Your task to perform on an android device: allow cookies in the chrome app Image 0: 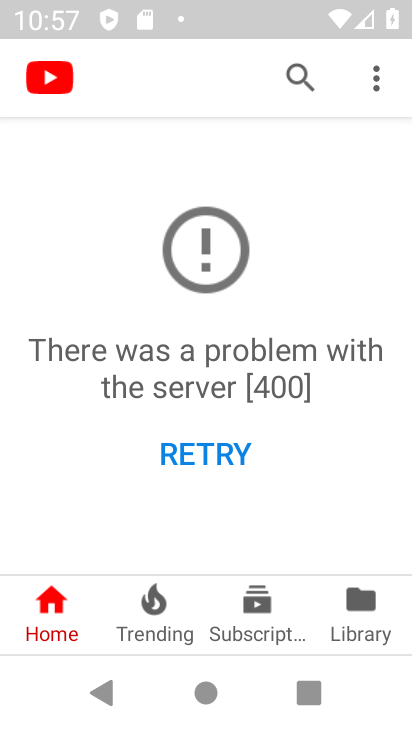
Step 0: press home button
Your task to perform on an android device: allow cookies in the chrome app Image 1: 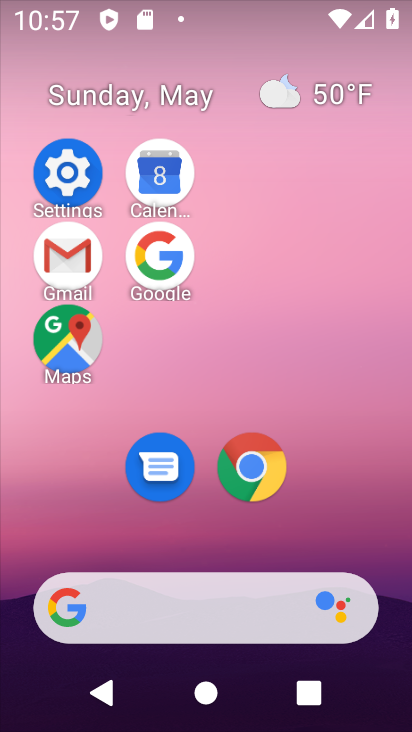
Step 1: click (276, 444)
Your task to perform on an android device: allow cookies in the chrome app Image 2: 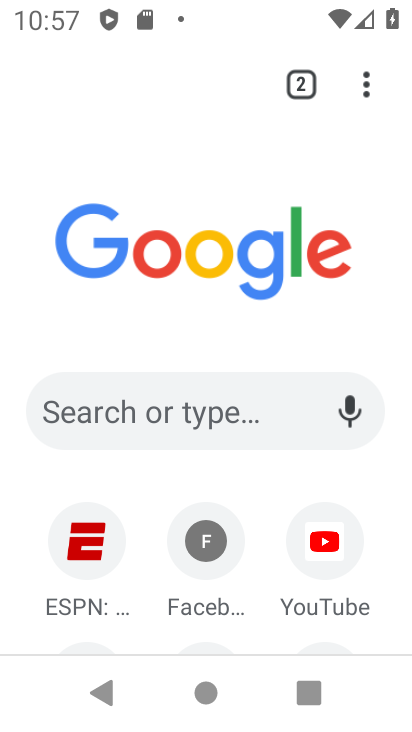
Step 2: click (383, 95)
Your task to perform on an android device: allow cookies in the chrome app Image 3: 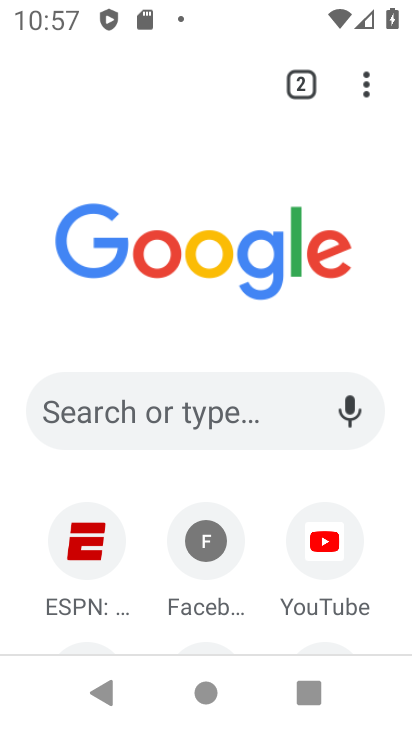
Step 3: click (367, 86)
Your task to perform on an android device: allow cookies in the chrome app Image 4: 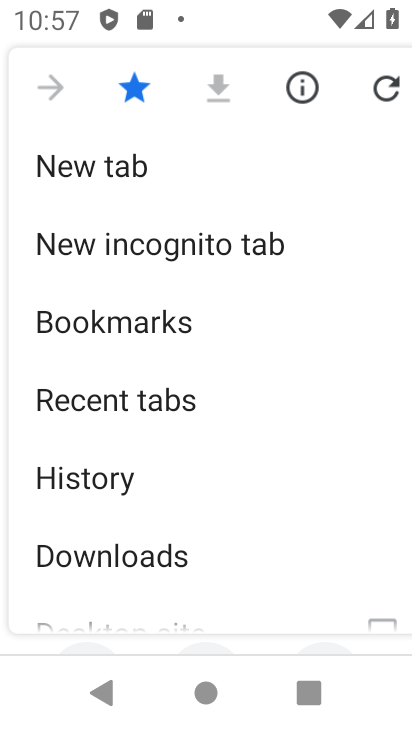
Step 4: drag from (197, 297) to (201, 181)
Your task to perform on an android device: allow cookies in the chrome app Image 5: 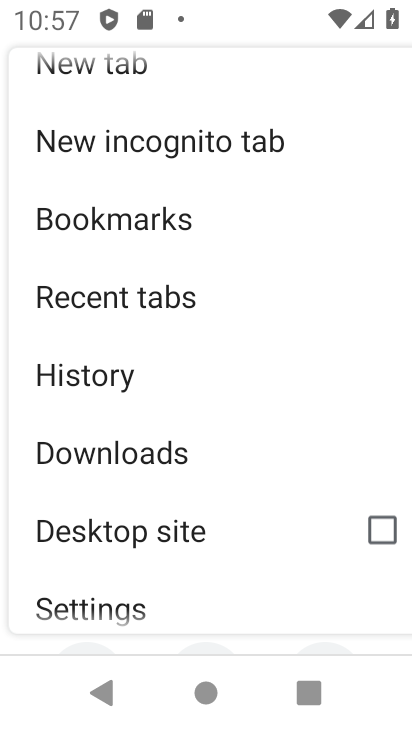
Step 5: drag from (210, 536) to (232, 198)
Your task to perform on an android device: allow cookies in the chrome app Image 6: 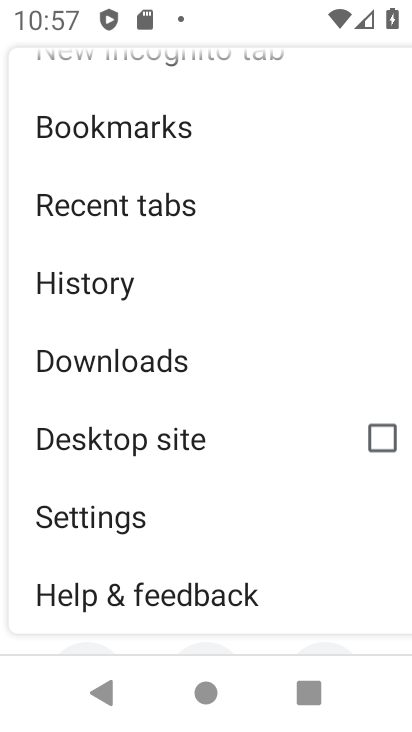
Step 6: click (185, 492)
Your task to perform on an android device: allow cookies in the chrome app Image 7: 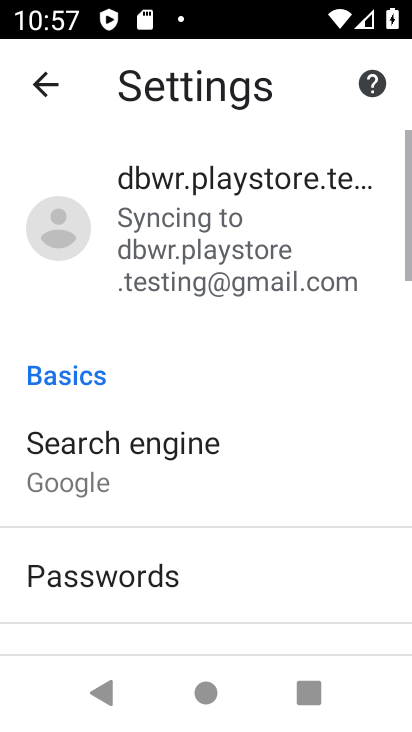
Step 7: drag from (201, 336) to (227, 158)
Your task to perform on an android device: allow cookies in the chrome app Image 8: 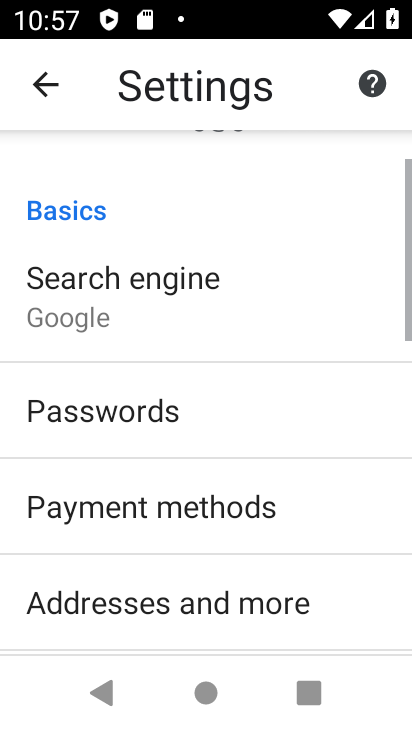
Step 8: drag from (210, 487) to (237, 181)
Your task to perform on an android device: allow cookies in the chrome app Image 9: 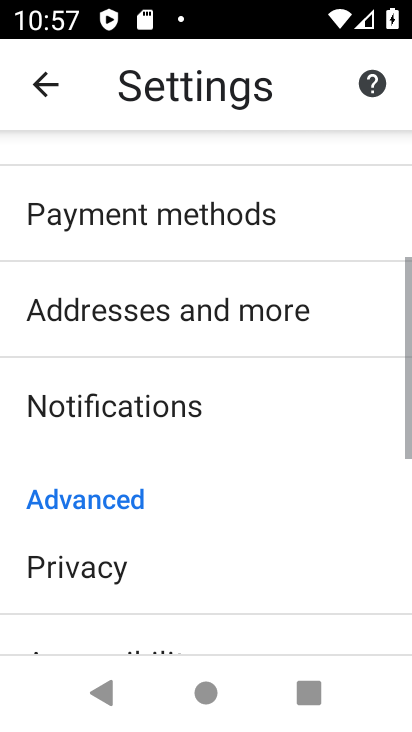
Step 9: drag from (156, 507) to (184, 232)
Your task to perform on an android device: allow cookies in the chrome app Image 10: 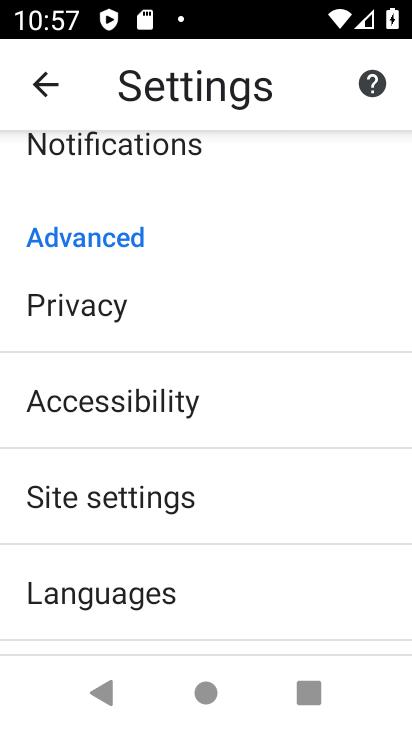
Step 10: click (185, 479)
Your task to perform on an android device: allow cookies in the chrome app Image 11: 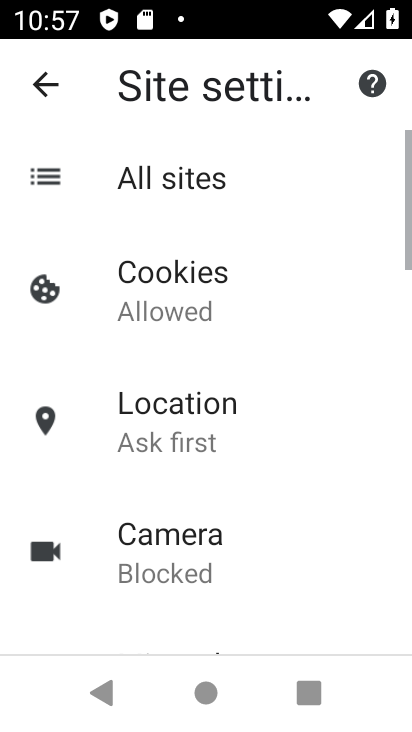
Step 11: click (149, 283)
Your task to perform on an android device: allow cookies in the chrome app Image 12: 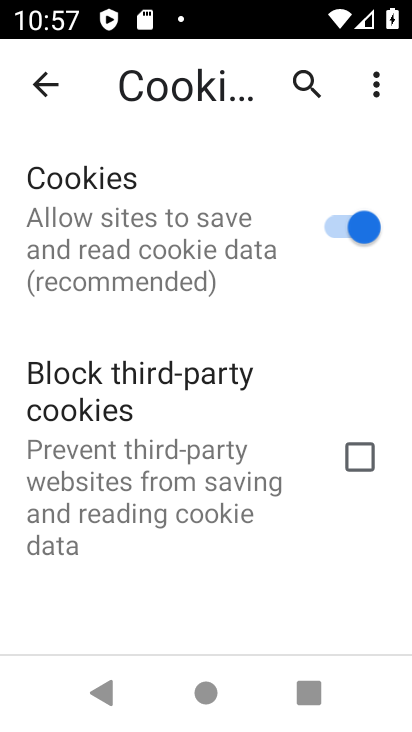
Step 12: task complete